Your task to perform on an android device: Go to Google maps Image 0: 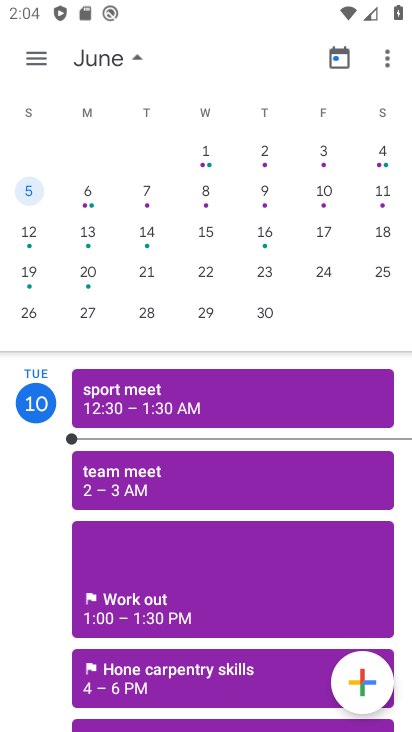
Step 0: press home button
Your task to perform on an android device: Go to Google maps Image 1: 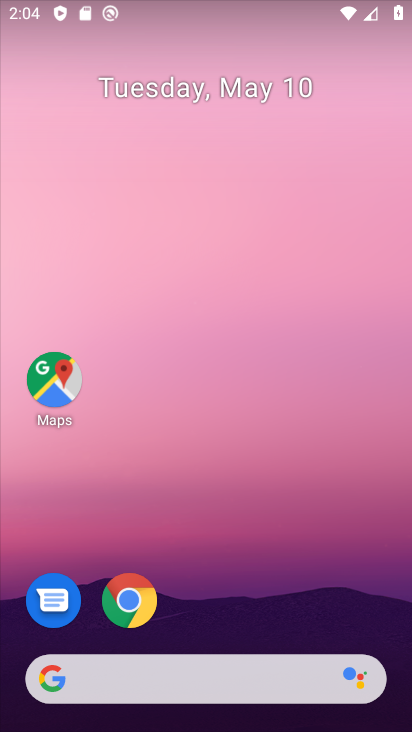
Step 1: drag from (256, 610) to (270, 92)
Your task to perform on an android device: Go to Google maps Image 2: 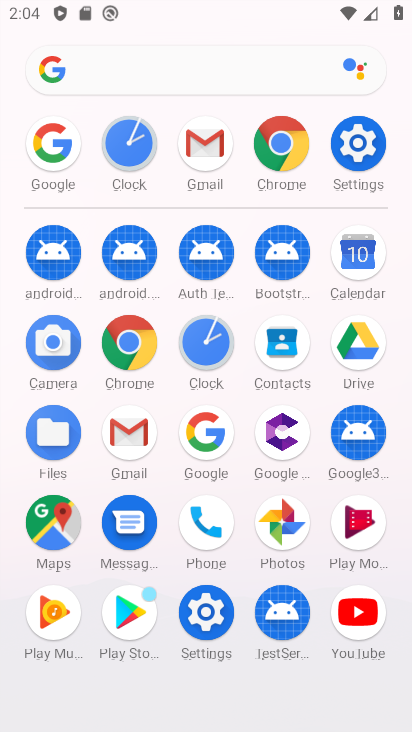
Step 2: click (47, 530)
Your task to perform on an android device: Go to Google maps Image 3: 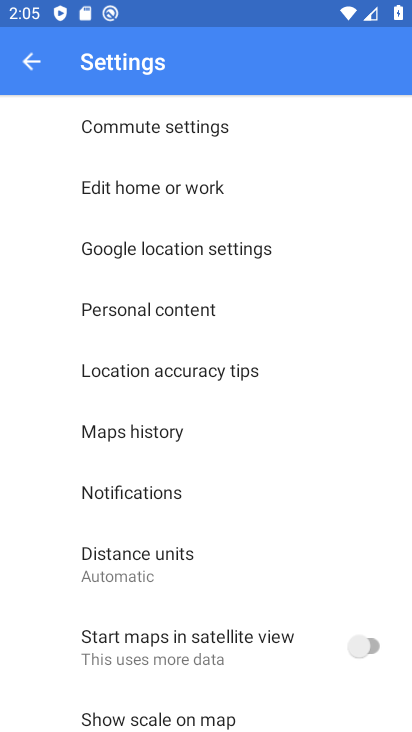
Step 3: click (33, 68)
Your task to perform on an android device: Go to Google maps Image 4: 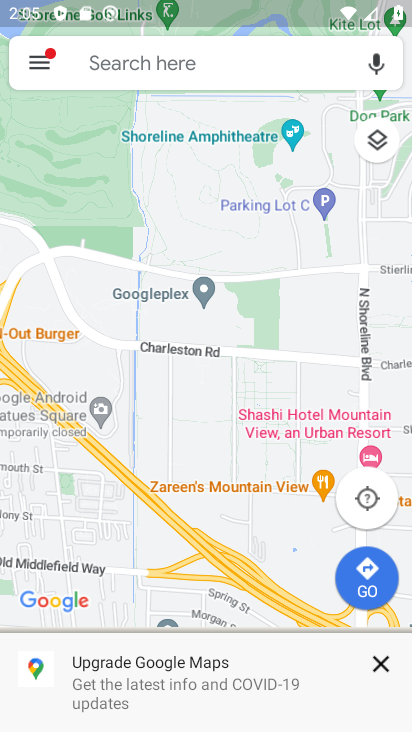
Step 4: task complete